Your task to perform on an android device: Go to wifi settings Image 0: 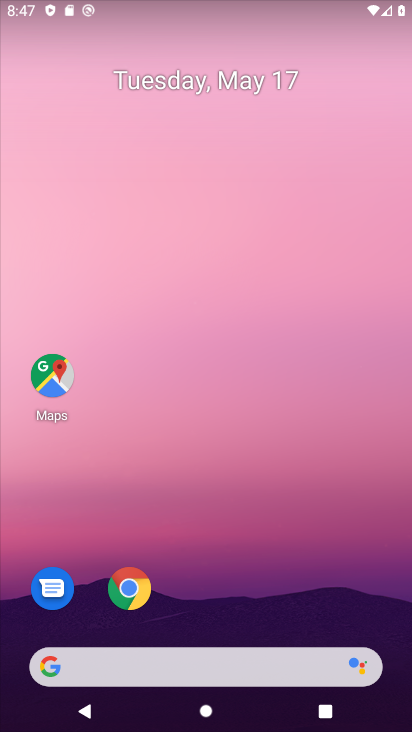
Step 0: drag from (410, 448) to (411, 286)
Your task to perform on an android device: Go to wifi settings Image 1: 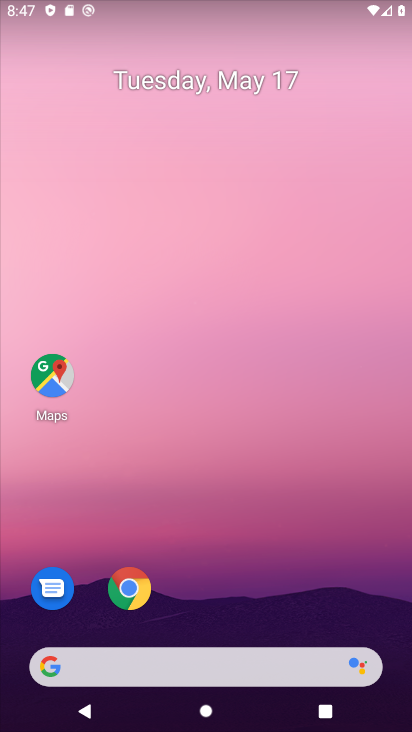
Step 1: drag from (371, 669) to (278, 92)
Your task to perform on an android device: Go to wifi settings Image 2: 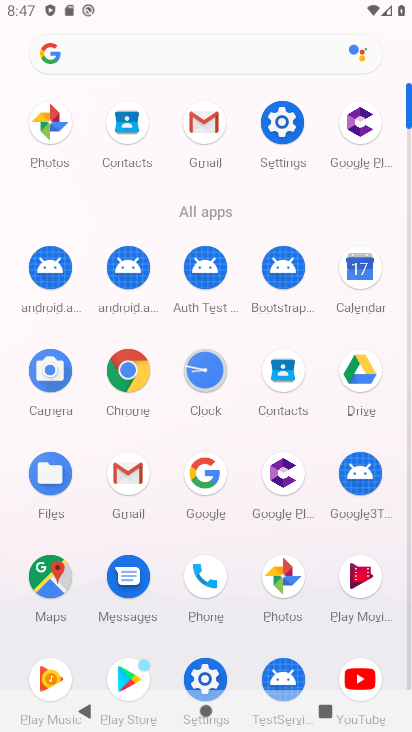
Step 2: click (285, 128)
Your task to perform on an android device: Go to wifi settings Image 3: 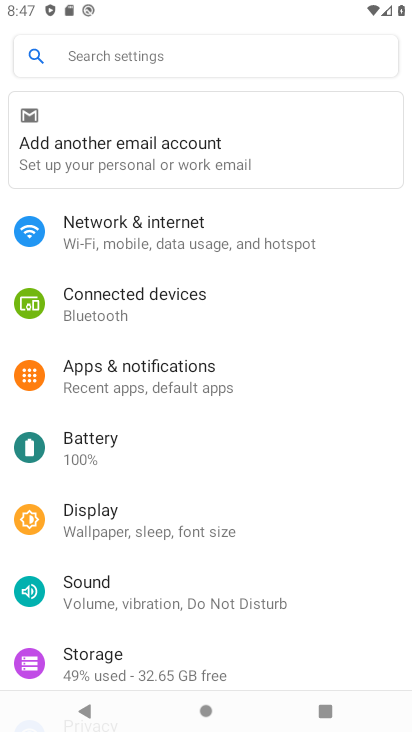
Step 3: click (137, 218)
Your task to perform on an android device: Go to wifi settings Image 4: 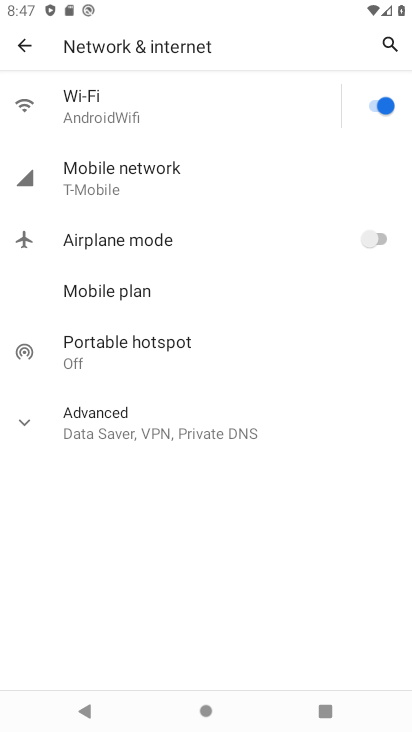
Step 4: click (82, 106)
Your task to perform on an android device: Go to wifi settings Image 5: 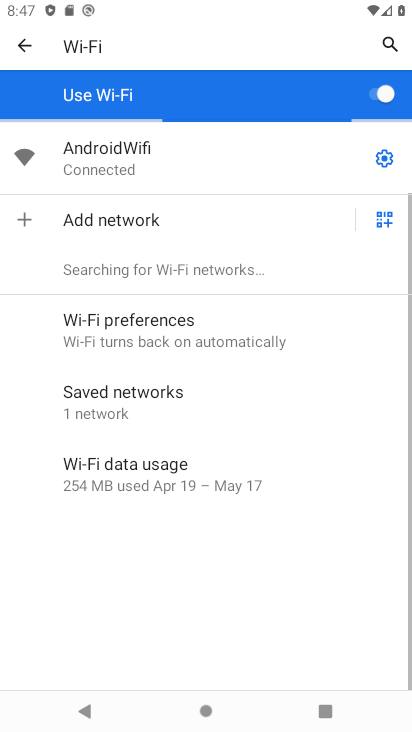
Step 5: click (383, 158)
Your task to perform on an android device: Go to wifi settings Image 6: 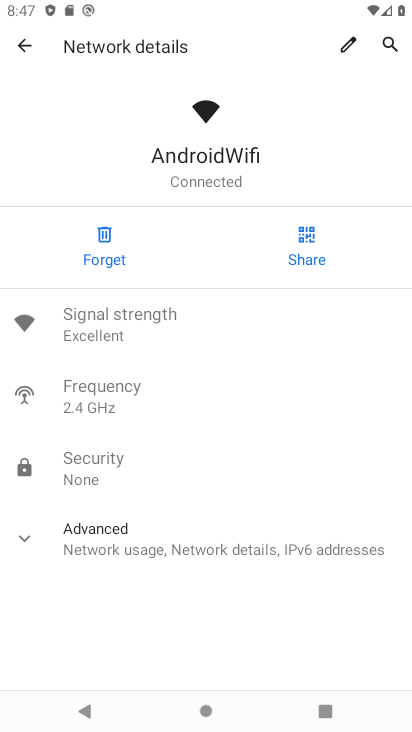
Step 6: task complete